Your task to perform on an android device: Open internet settings Image 0: 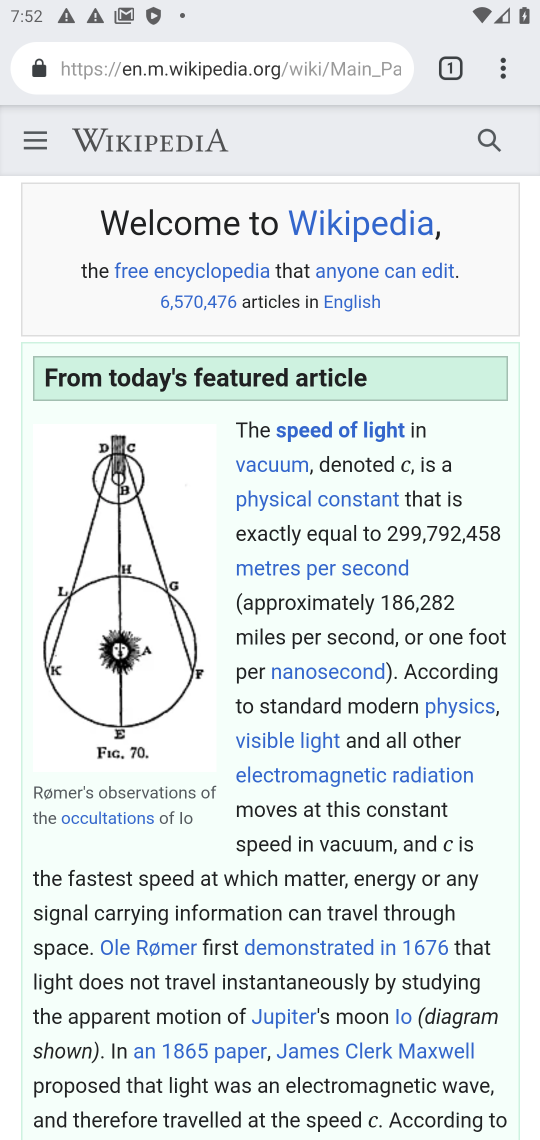
Step 0: drag from (298, 13) to (356, 786)
Your task to perform on an android device: Open internet settings Image 1: 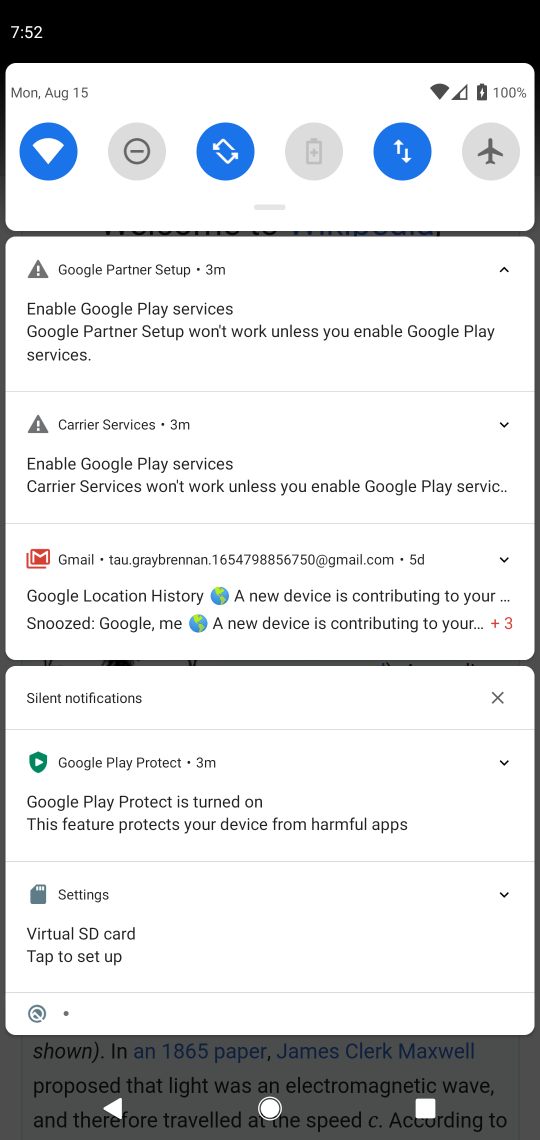
Step 1: click (405, 160)
Your task to perform on an android device: Open internet settings Image 2: 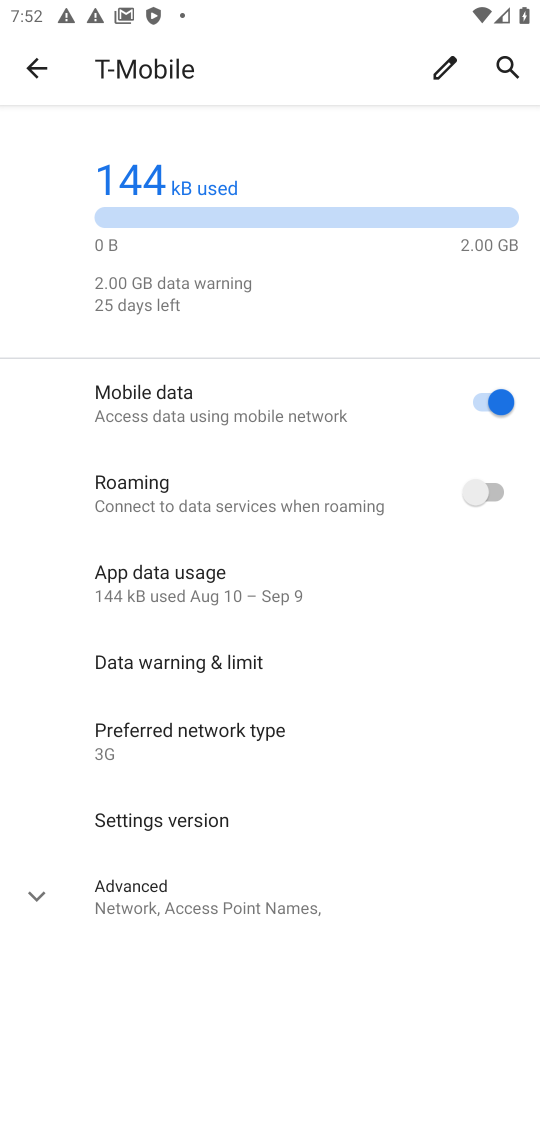
Step 2: task complete